Your task to perform on an android device: Do I have any events tomorrow? Image 0: 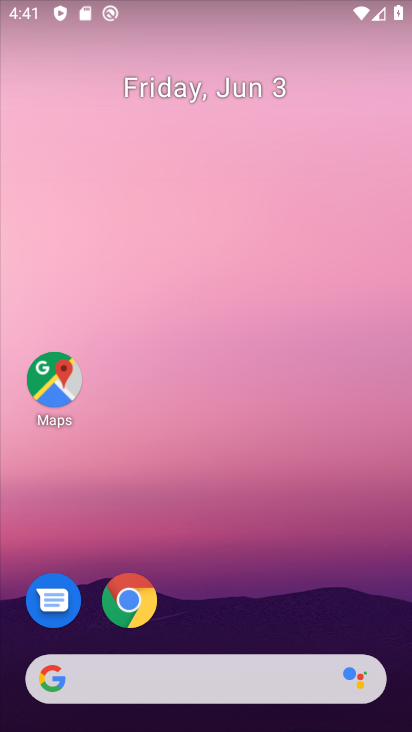
Step 0: drag from (221, 645) to (281, 166)
Your task to perform on an android device: Do I have any events tomorrow? Image 1: 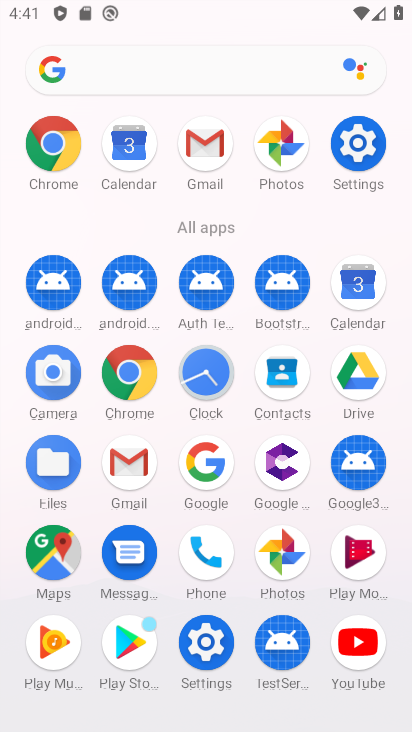
Step 1: click (370, 288)
Your task to perform on an android device: Do I have any events tomorrow? Image 2: 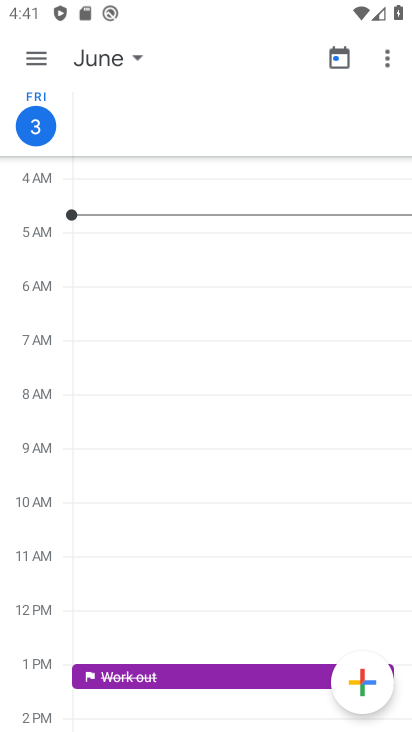
Step 2: click (43, 62)
Your task to perform on an android device: Do I have any events tomorrow? Image 3: 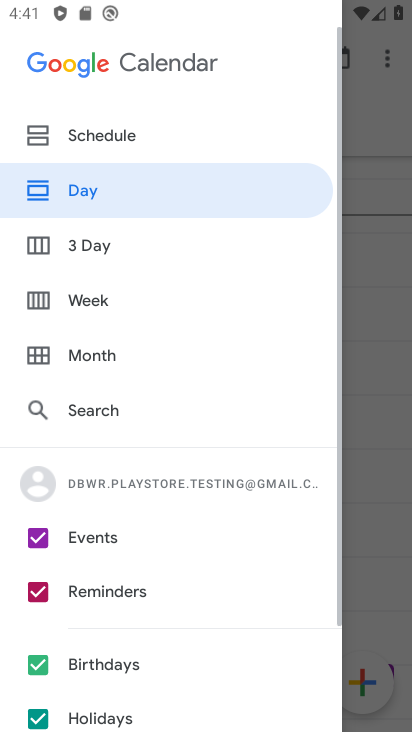
Step 3: click (103, 608)
Your task to perform on an android device: Do I have any events tomorrow? Image 4: 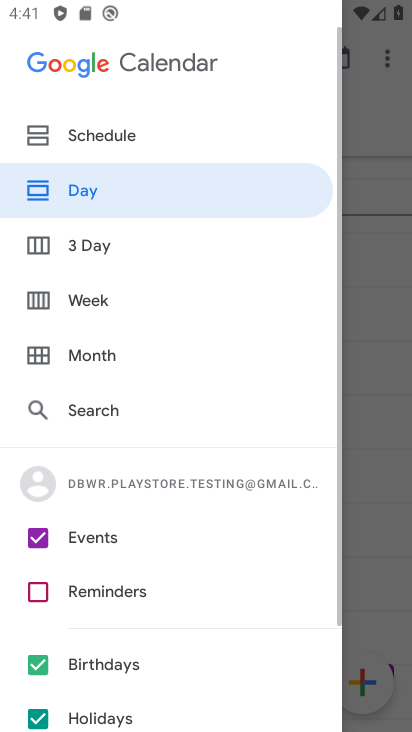
Step 4: click (93, 656)
Your task to perform on an android device: Do I have any events tomorrow? Image 5: 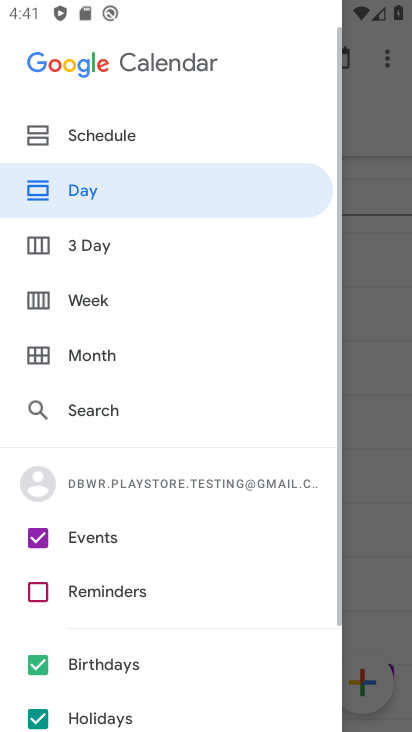
Step 5: click (87, 710)
Your task to perform on an android device: Do I have any events tomorrow? Image 6: 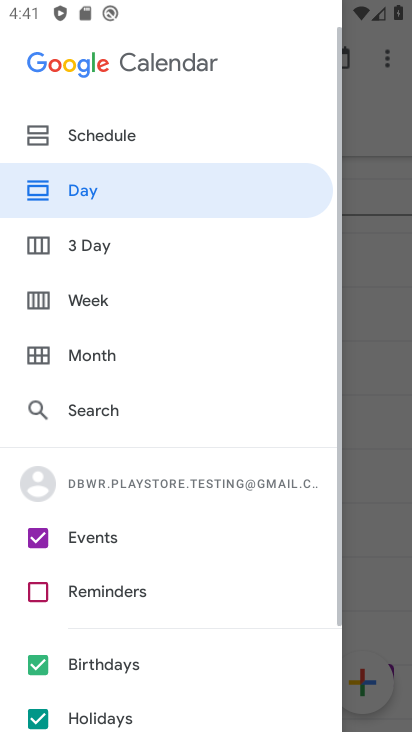
Step 6: drag from (59, 689) to (62, 613)
Your task to perform on an android device: Do I have any events tomorrow? Image 7: 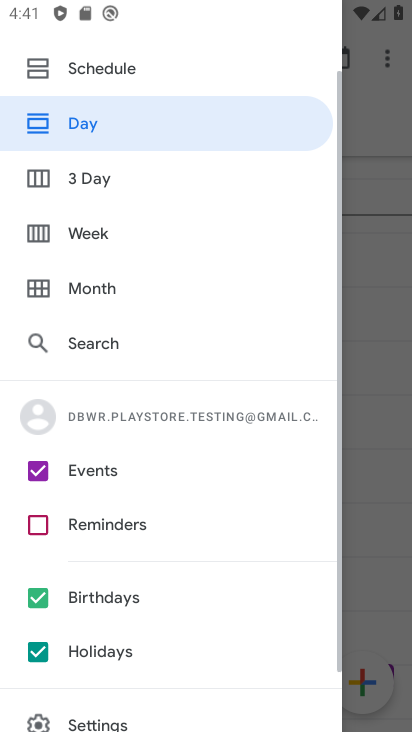
Step 7: click (40, 655)
Your task to perform on an android device: Do I have any events tomorrow? Image 8: 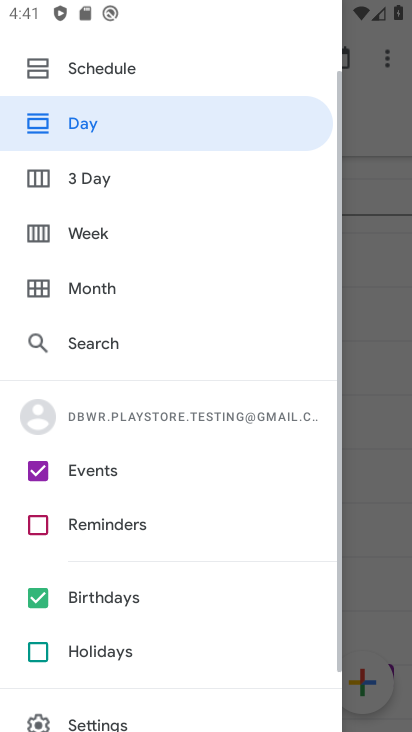
Step 8: click (65, 599)
Your task to perform on an android device: Do I have any events tomorrow? Image 9: 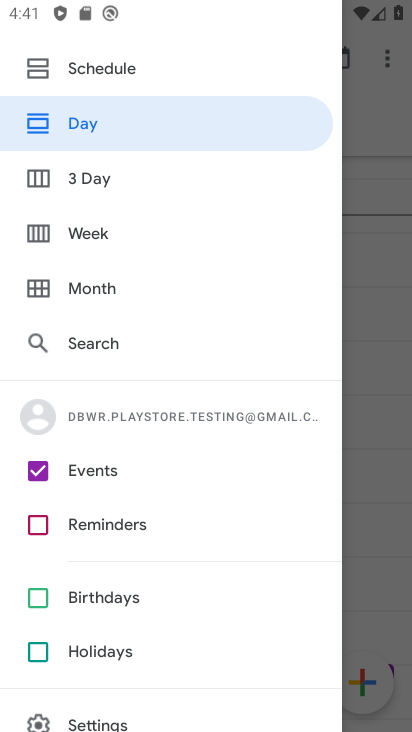
Step 9: click (117, 179)
Your task to perform on an android device: Do I have any events tomorrow? Image 10: 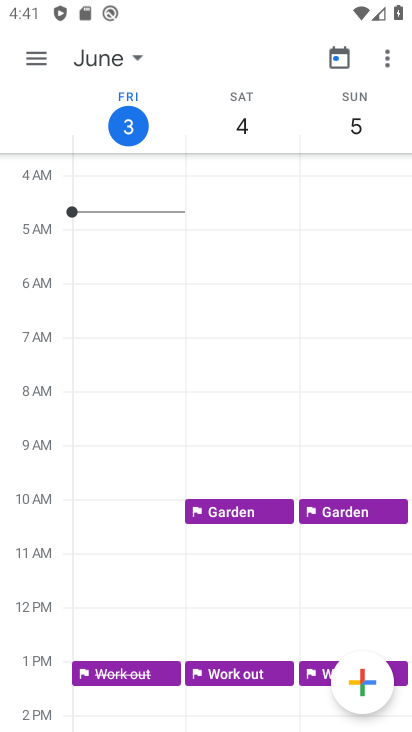
Step 10: task complete